Your task to perform on an android device: toggle pop-ups in chrome Image 0: 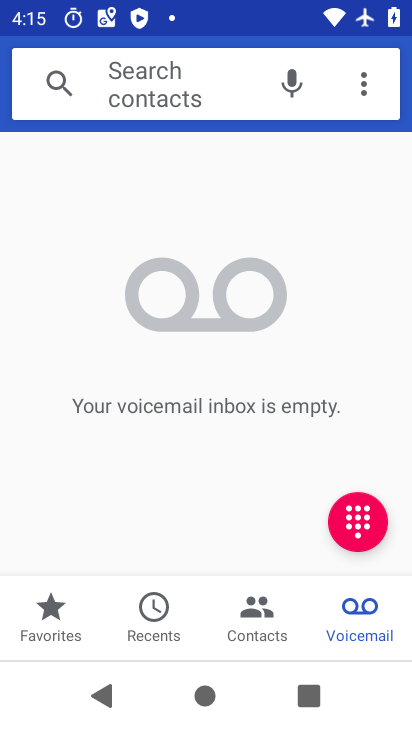
Step 0: press home button
Your task to perform on an android device: toggle pop-ups in chrome Image 1: 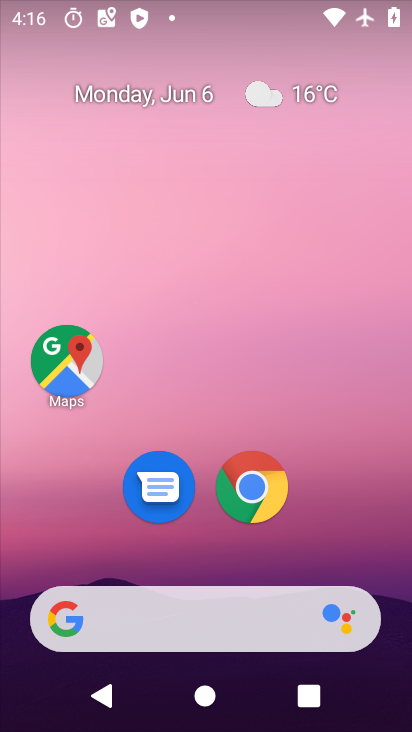
Step 1: click (253, 483)
Your task to perform on an android device: toggle pop-ups in chrome Image 2: 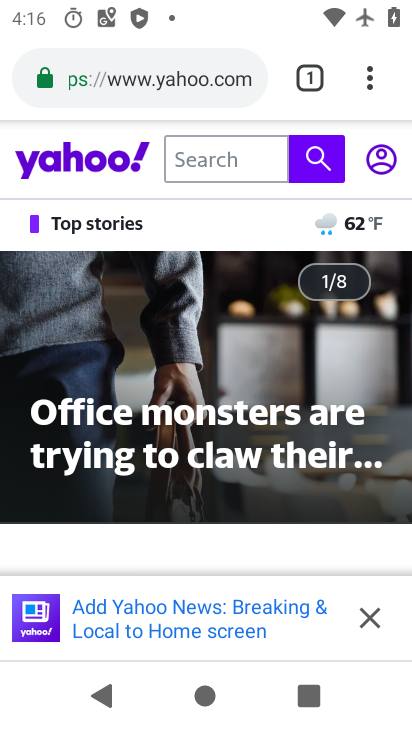
Step 2: drag from (376, 67) to (189, 533)
Your task to perform on an android device: toggle pop-ups in chrome Image 3: 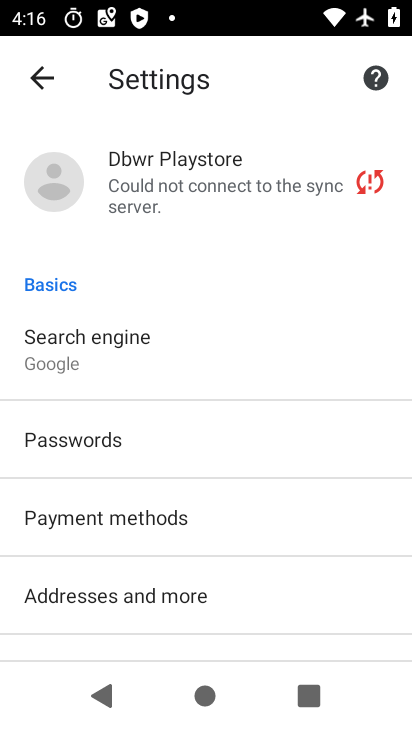
Step 3: click (262, 220)
Your task to perform on an android device: toggle pop-ups in chrome Image 4: 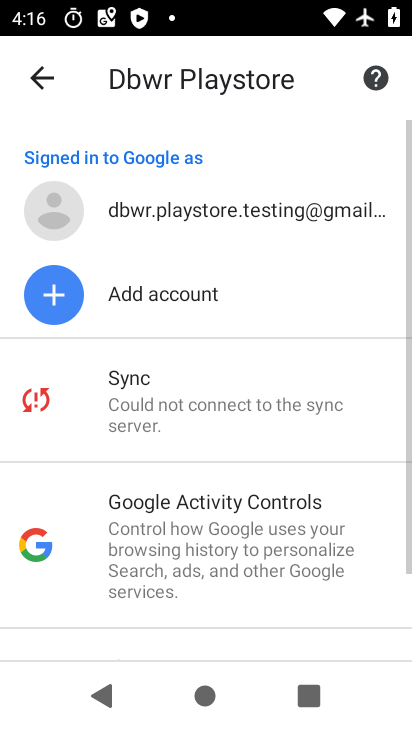
Step 4: click (39, 79)
Your task to perform on an android device: toggle pop-ups in chrome Image 5: 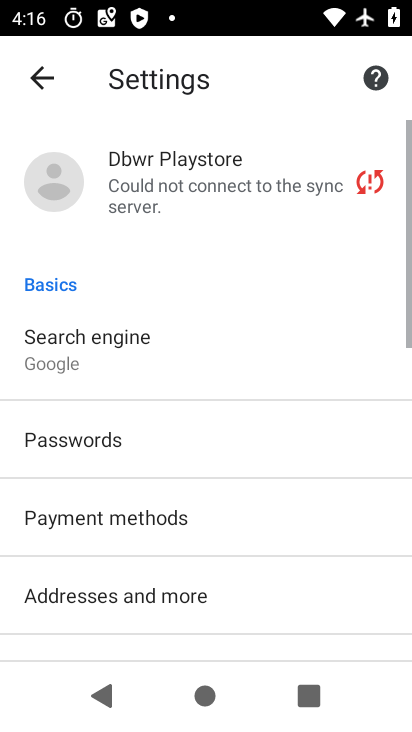
Step 5: drag from (180, 441) to (226, 91)
Your task to perform on an android device: toggle pop-ups in chrome Image 6: 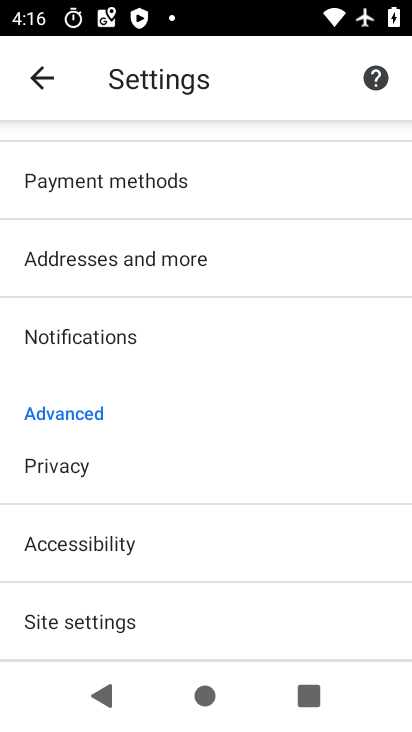
Step 6: drag from (180, 457) to (255, 178)
Your task to perform on an android device: toggle pop-ups in chrome Image 7: 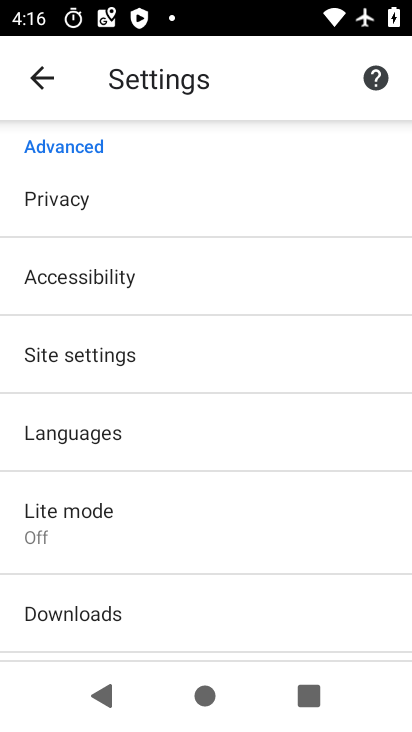
Step 7: click (140, 340)
Your task to perform on an android device: toggle pop-ups in chrome Image 8: 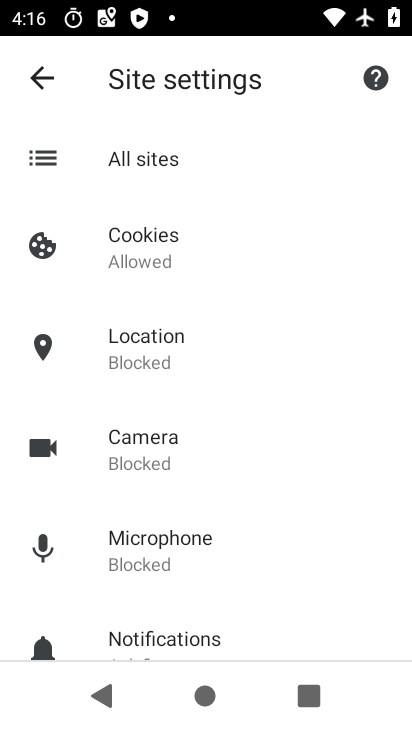
Step 8: drag from (270, 545) to (310, 177)
Your task to perform on an android device: toggle pop-ups in chrome Image 9: 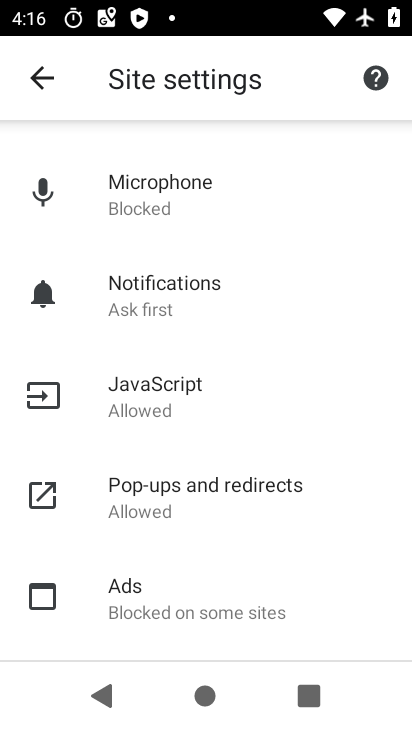
Step 9: click (225, 485)
Your task to perform on an android device: toggle pop-ups in chrome Image 10: 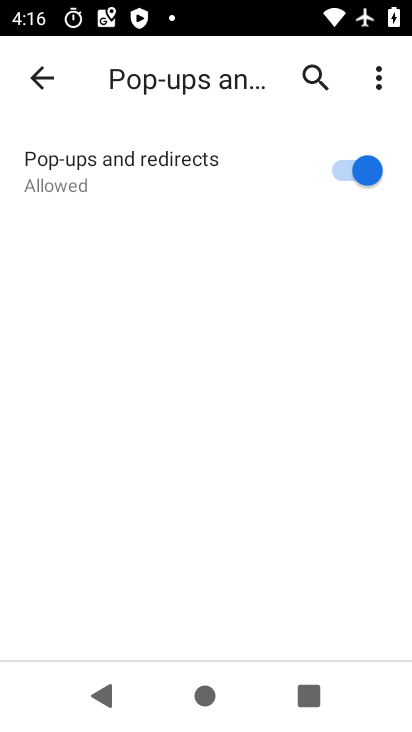
Step 10: click (378, 145)
Your task to perform on an android device: toggle pop-ups in chrome Image 11: 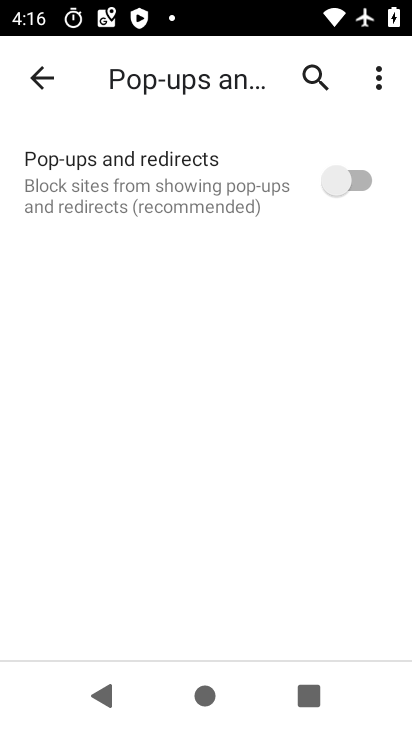
Step 11: task complete